Your task to perform on an android device: Toggle the flashlight Image 0: 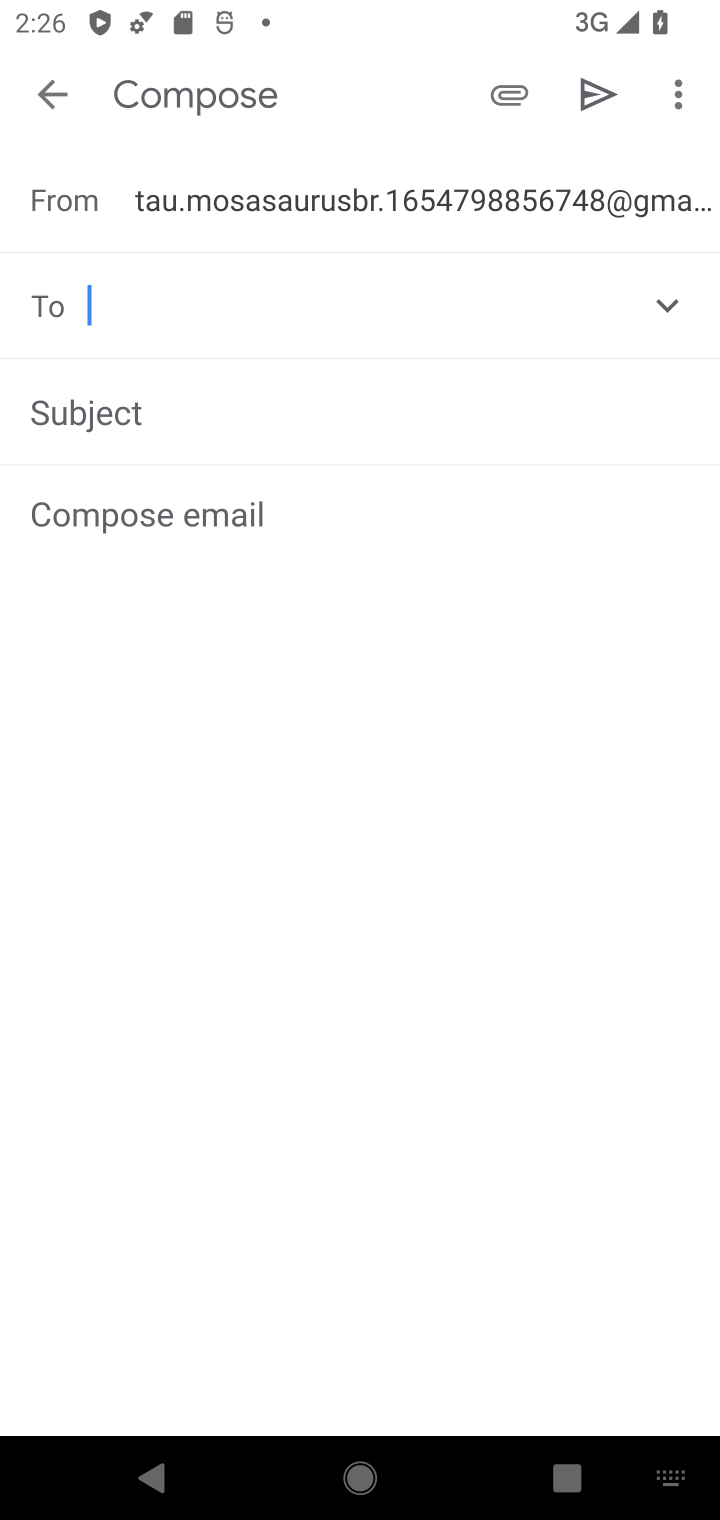
Step 0: press home button
Your task to perform on an android device: Toggle the flashlight Image 1: 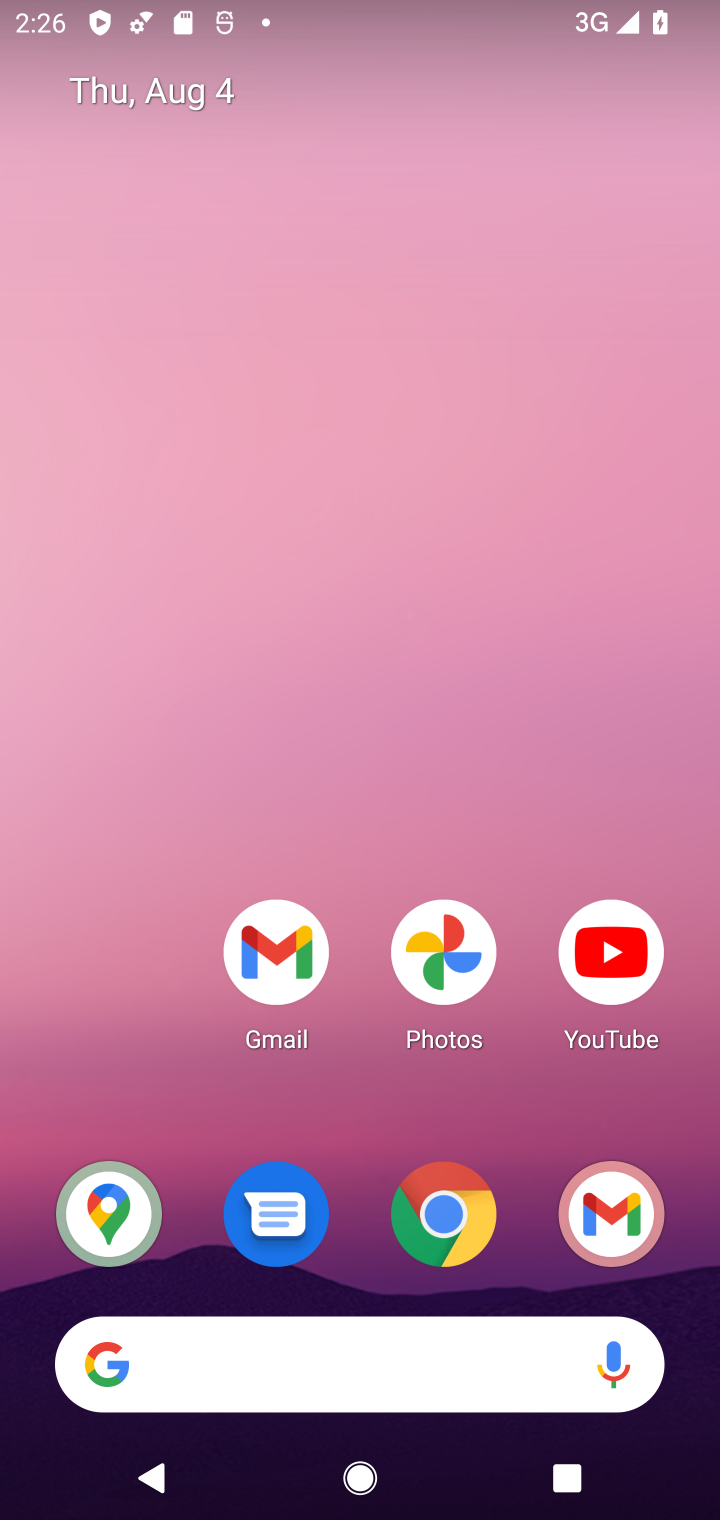
Step 1: drag from (102, 908) to (122, 229)
Your task to perform on an android device: Toggle the flashlight Image 2: 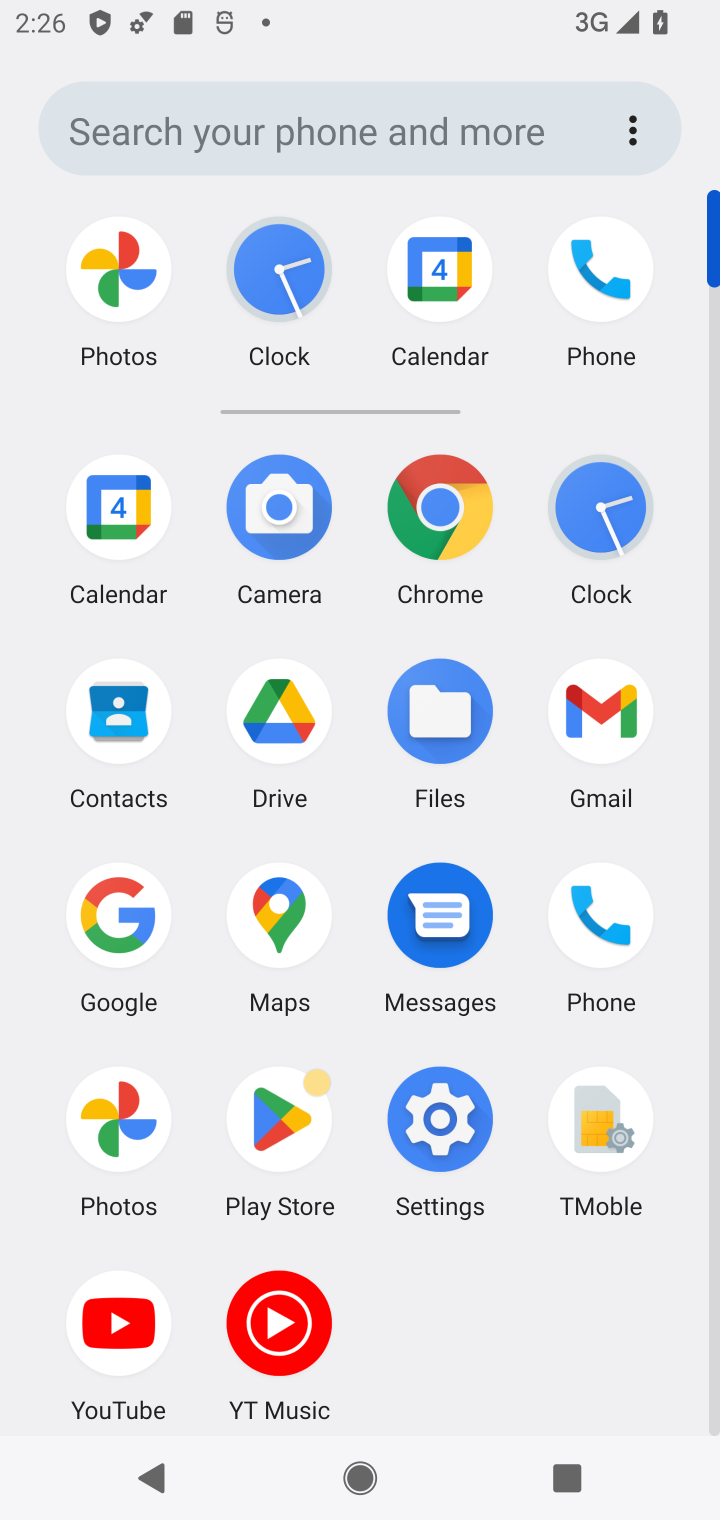
Step 2: click (439, 1125)
Your task to perform on an android device: Toggle the flashlight Image 3: 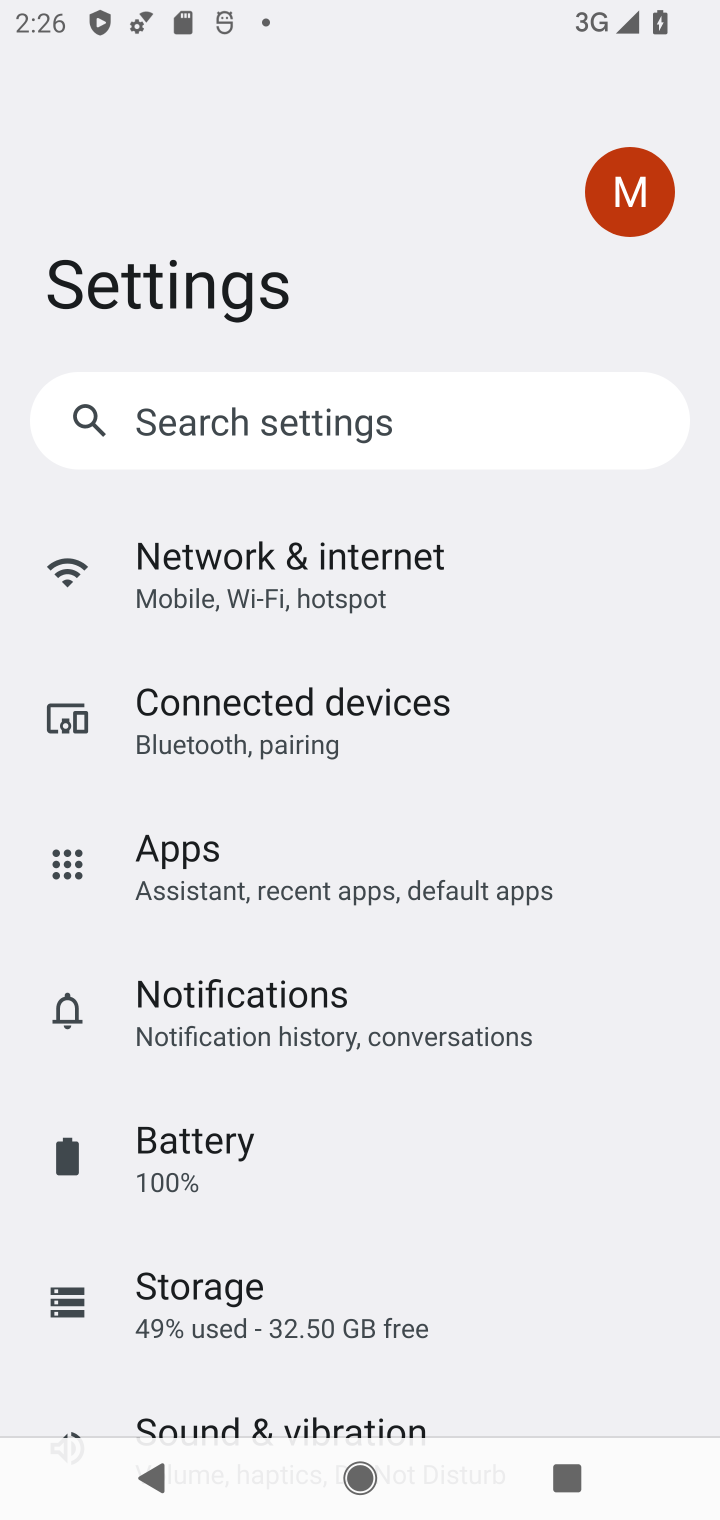
Step 3: task complete